Your task to perform on an android device: Open battery settings Image 0: 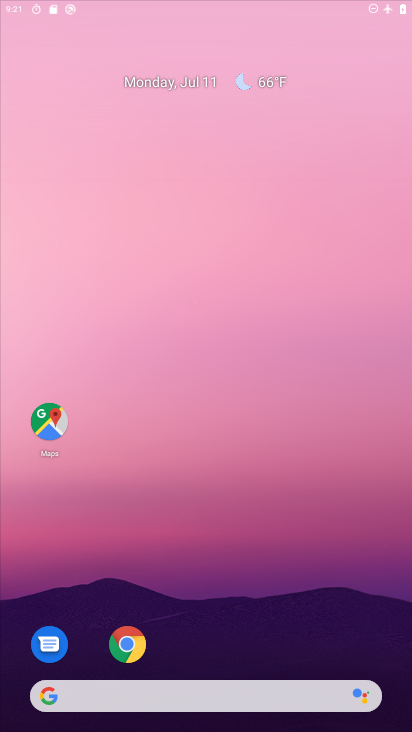
Step 0: drag from (304, 490) to (245, 34)
Your task to perform on an android device: Open battery settings Image 1: 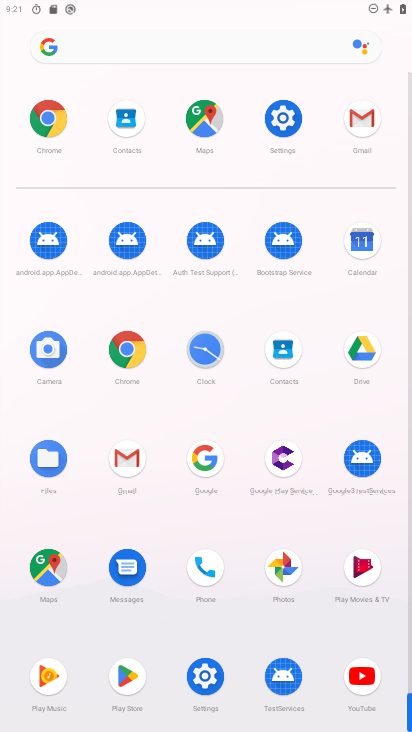
Step 1: click (291, 110)
Your task to perform on an android device: Open battery settings Image 2: 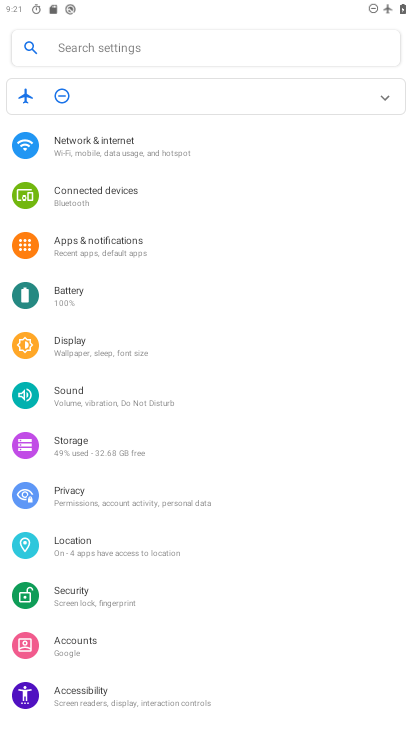
Step 2: click (88, 298)
Your task to perform on an android device: Open battery settings Image 3: 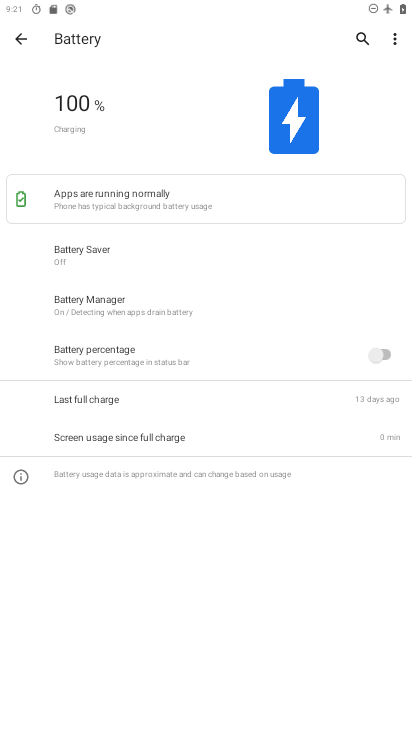
Step 3: task complete